Your task to perform on an android device: Open Reddit.com Image 0: 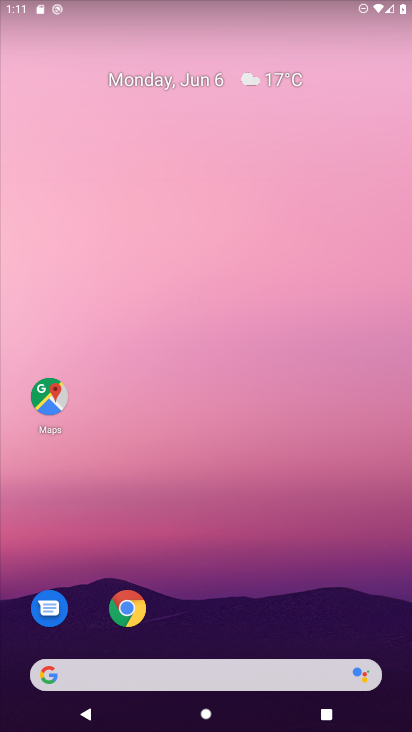
Step 0: click (136, 607)
Your task to perform on an android device: Open Reddit.com Image 1: 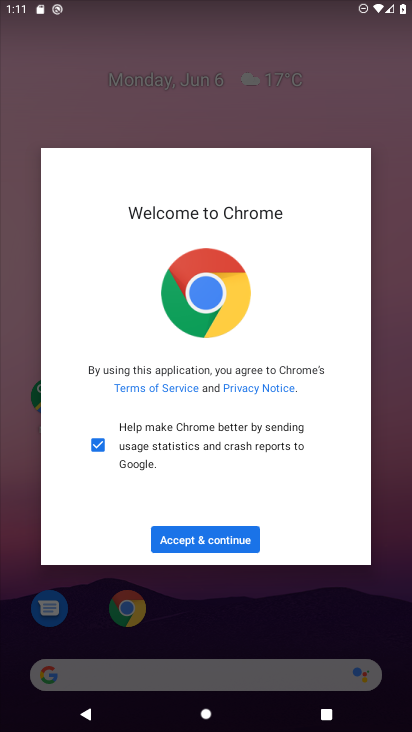
Step 1: click (234, 531)
Your task to perform on an android device: Open Reddit.com Image 2: 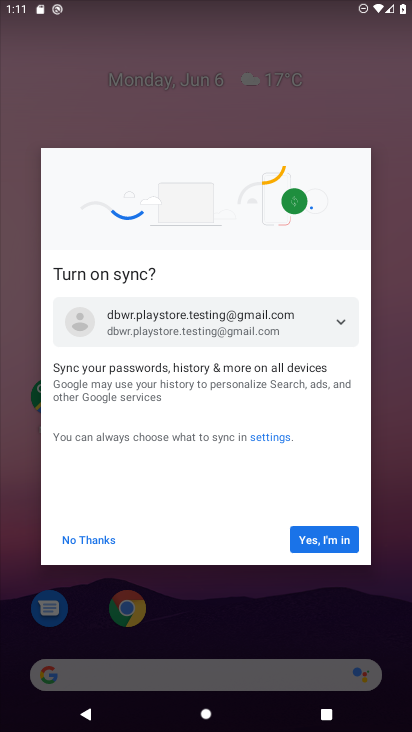
Step 2: click (312, 537)
Your task to perform on an android device: Open Reddit.com Image 3: 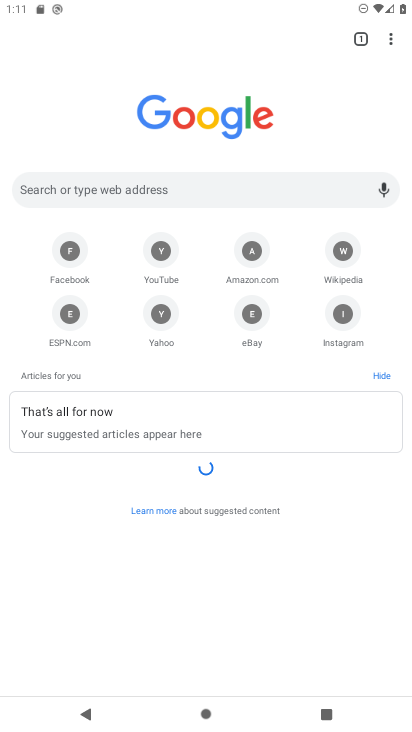
Step 3: click (201, 182)
Your task to perform on an android device: Open Reddit.com Image 4: 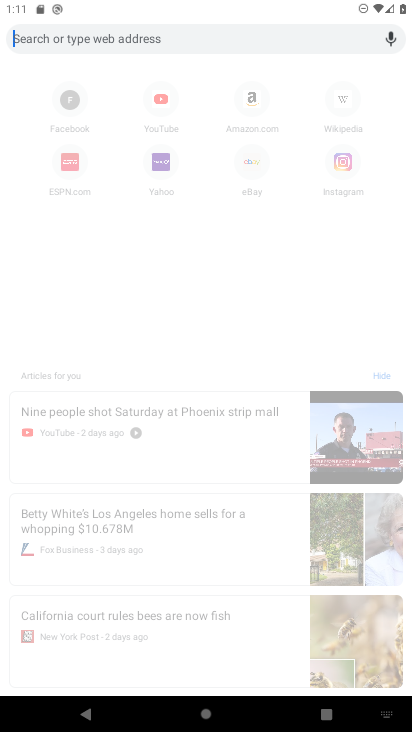
Step 4: type "reddit.com"
Your task to perform on an android device: Open Reddit.com Image 5: 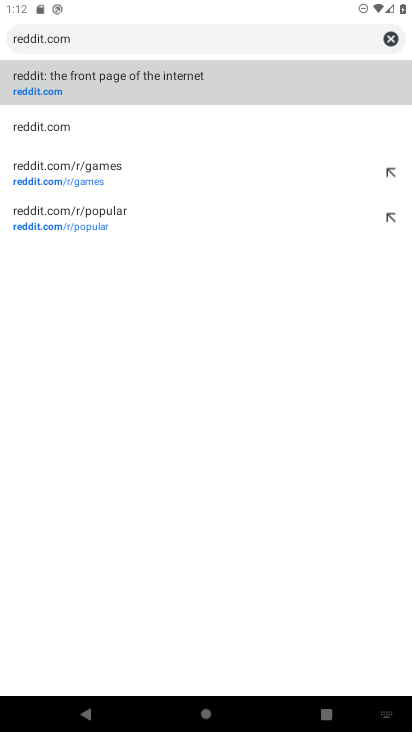
Step 5: click (52, 94)
Your task to perform on an android device: Open Reddit.com Image 6: 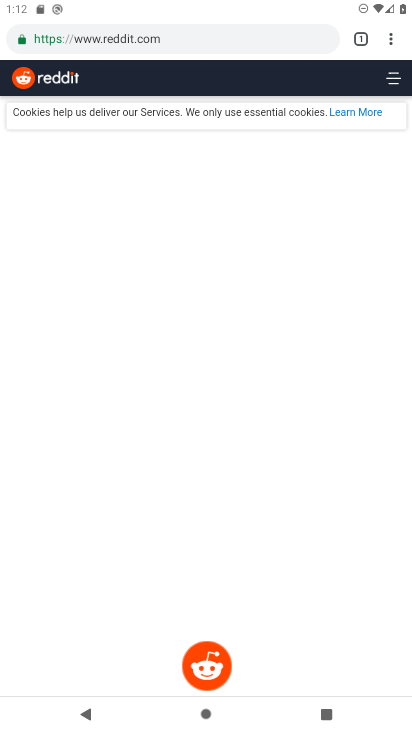
Step 6: task complete